Your task to perform on an android device: Go to ESPN.com Image 0: 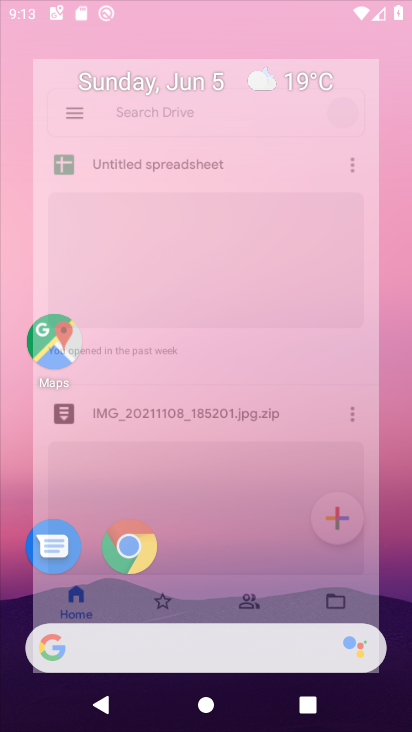
Step 0: press home button
Your task to perform on an android device: Go to ESPN.com Image 1: 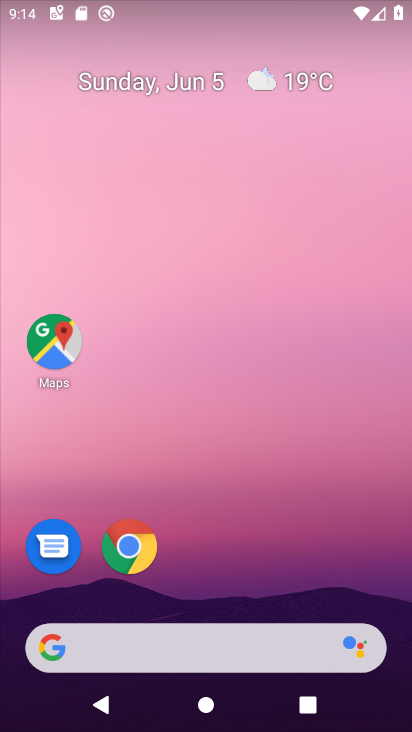
Step 1: click (138, 551)
Your task to perform on an android device: Go to ESPN.com Image 2: 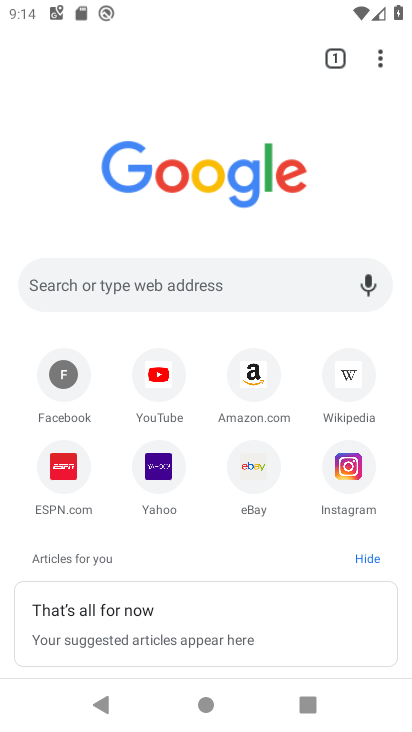
Step 2: click (68, 481)
Your task to perform on an android device: Go to ESPN.com Image 3: 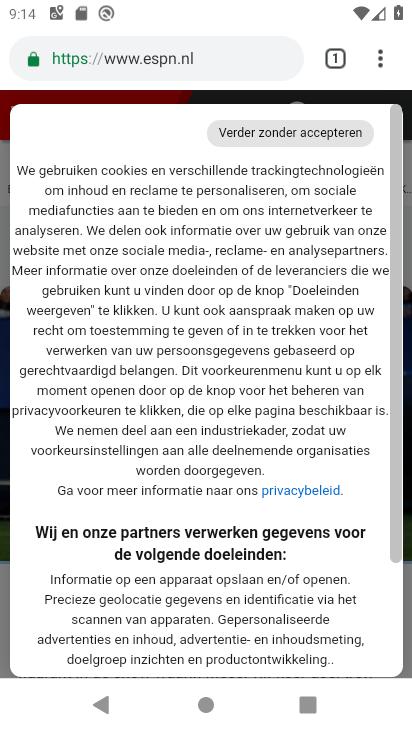
Step 3: task complete